Your task to perform on an android device: toggle wifi Image 0: 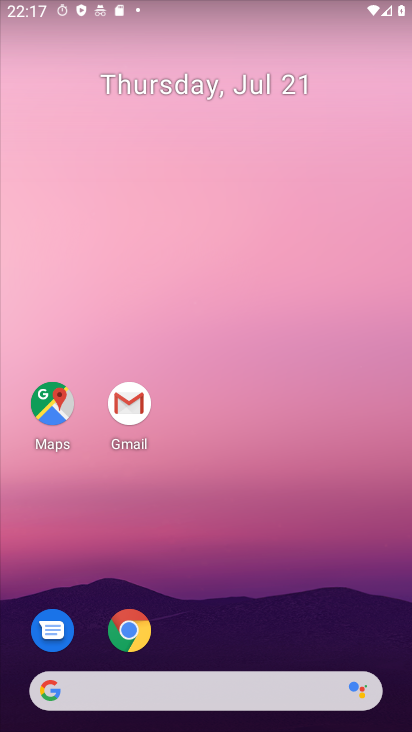
Step 0: drag from (267, 667) to (127, 141)
Your task to perform on an android device: toggle wifi Image 1: 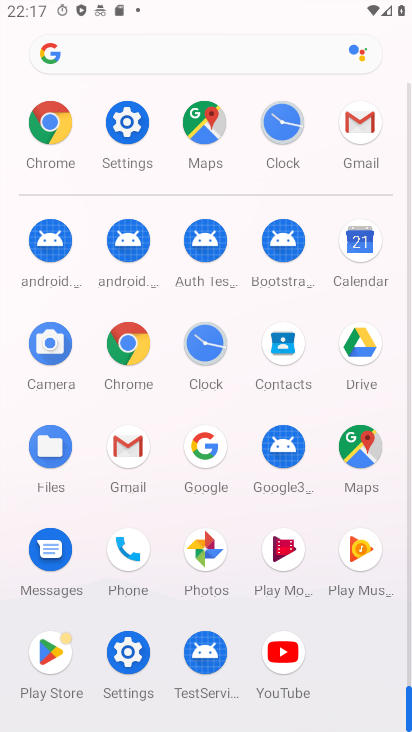
Step 1: click (113, 116)
Your task to perform on an android device: toggle wifi Image 2: 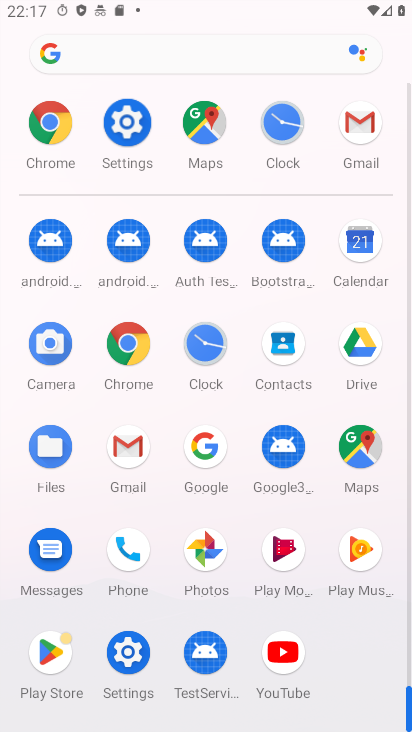
Step 2: click (130, 117)
Your task to perform on an android device: toggle wifi Image 3: 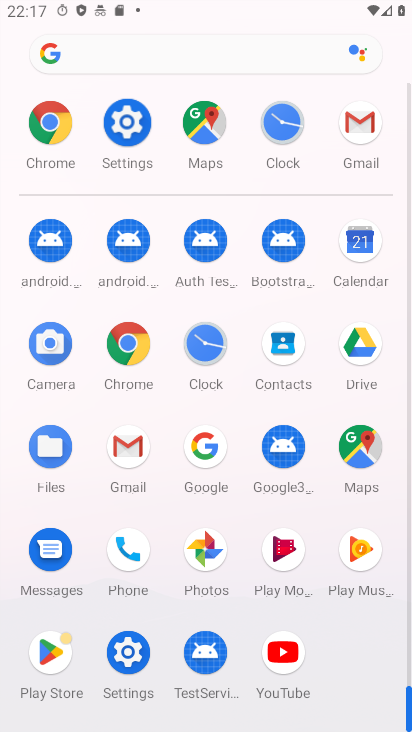
Step 3: click (132, 117)
Your task to perform on an android device: toggle wifi Image 4: 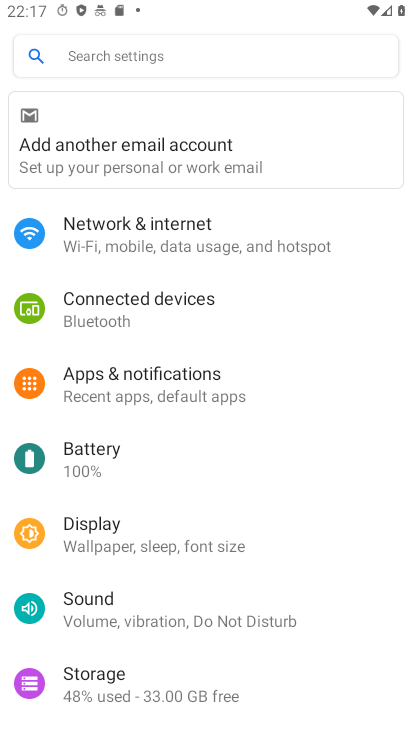
Step 4: click (145, 227)
Your task to perform on an android device: toggle wifi Image 5: 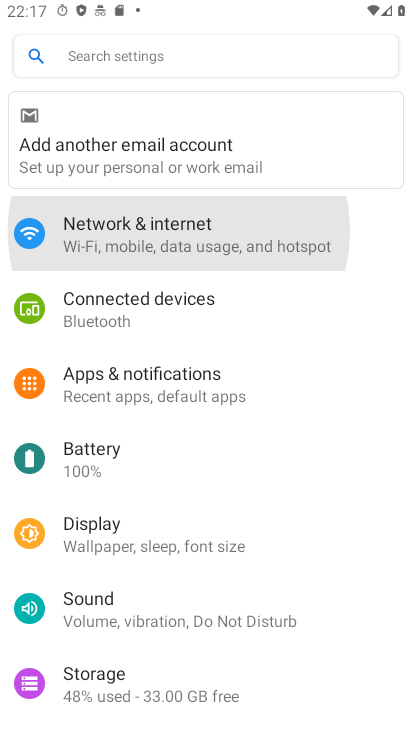
Step 5: click (145, 227)
Your task to perform on an android device: toggle wifi Image 6: 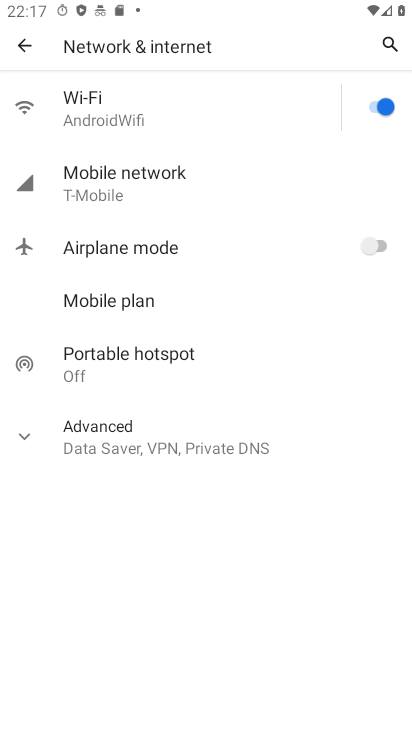
Step 6: click (380, 108)
Your task to perform on an android device: toggle wifi Image 7: 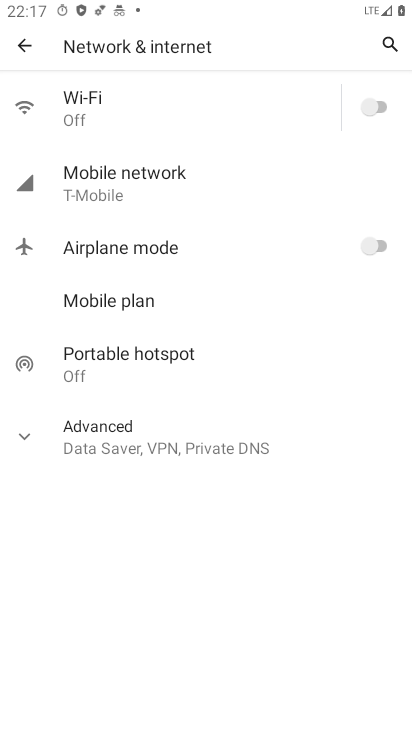
Step 7: task complete